Your task to perform on an android device: Show the shopping cart on amazon. Image 0: 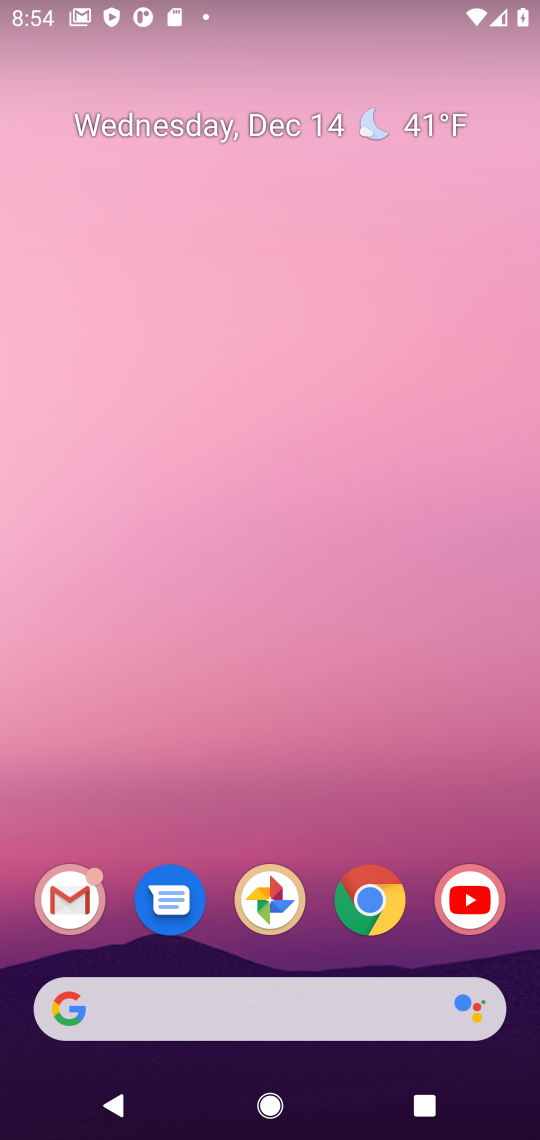
Step 0: click (362, 910)
Your task to perform on an android device: Show the shopping cart on amazon. Image 1: 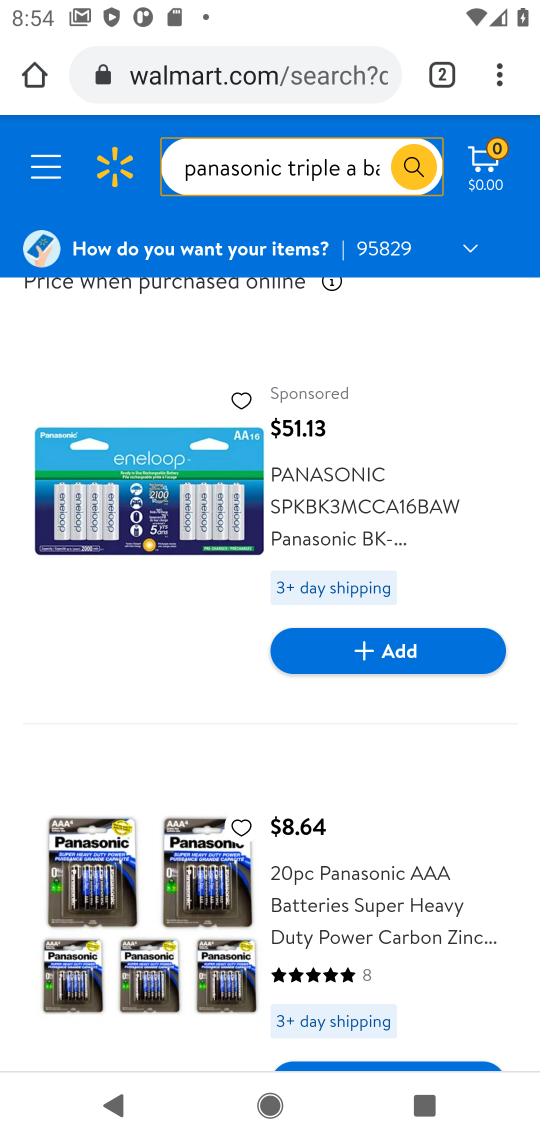
Step 1: click (226, 75)
Your task to perform on an android device: Show the shopping cart on amazon. Image 2: 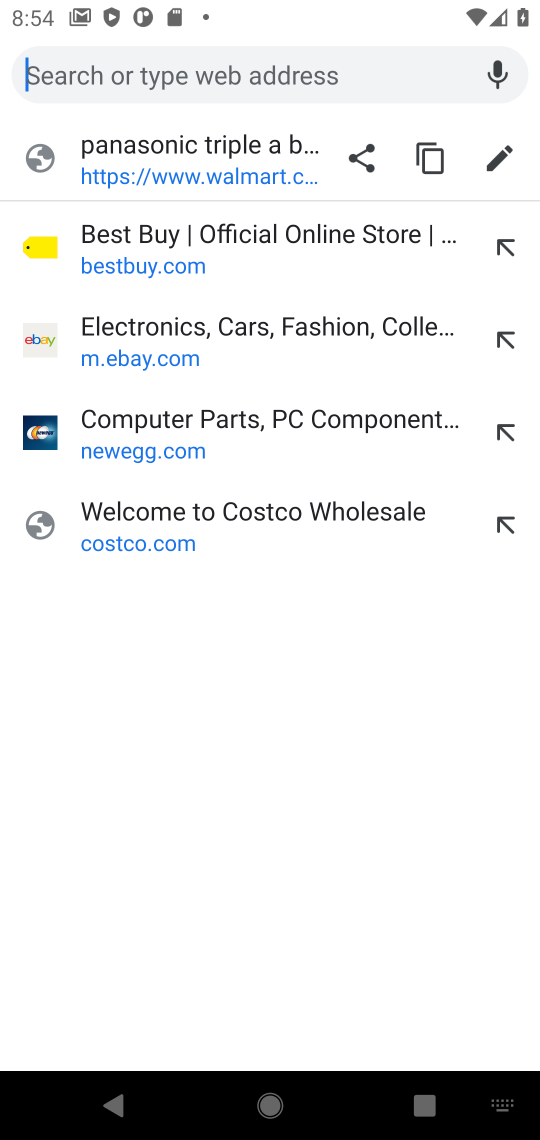
Step 2: type "amazon.com"
Your task to perform on an android device: Show the shopping cart on amazon. Image 3: 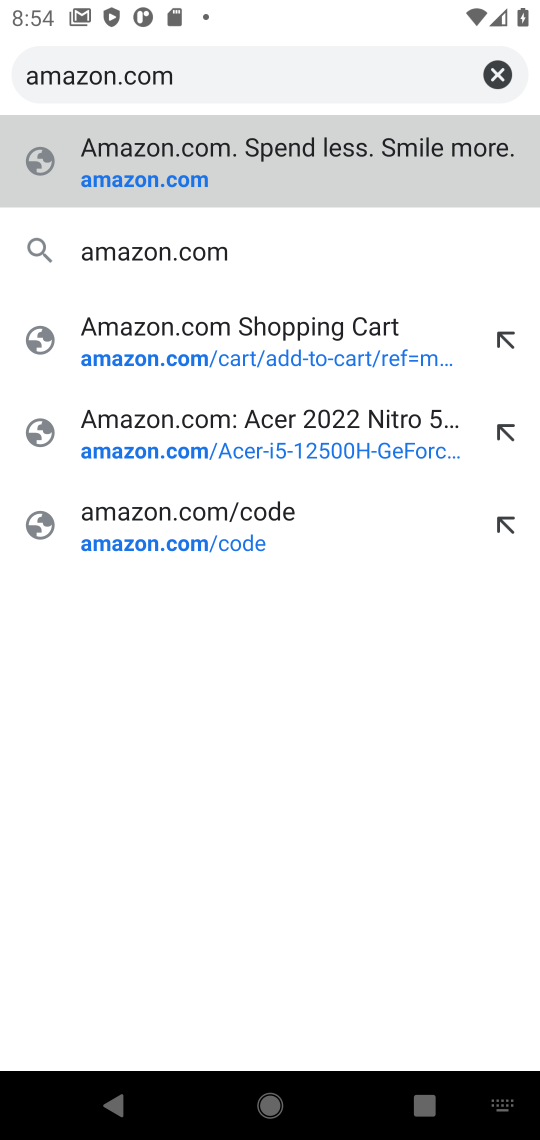
Step 3: click (139, 186)
Your task to perform on an android device: Show the shopping cart on amazon. Image 4: 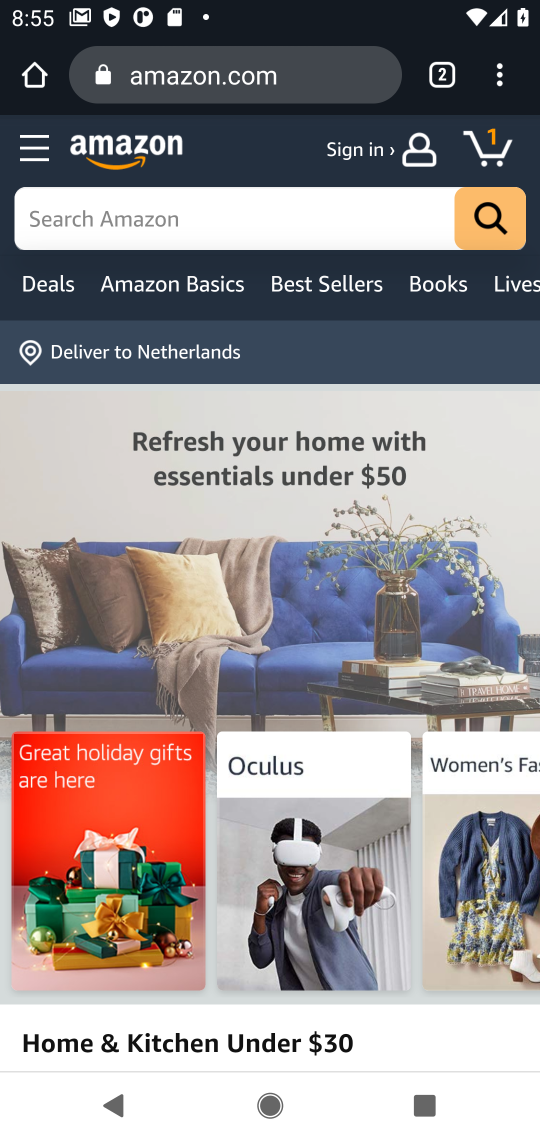
Step 4: click (496, 161)
Your task to perform on an android device: Show the shopping cart on amazon. Image 5: 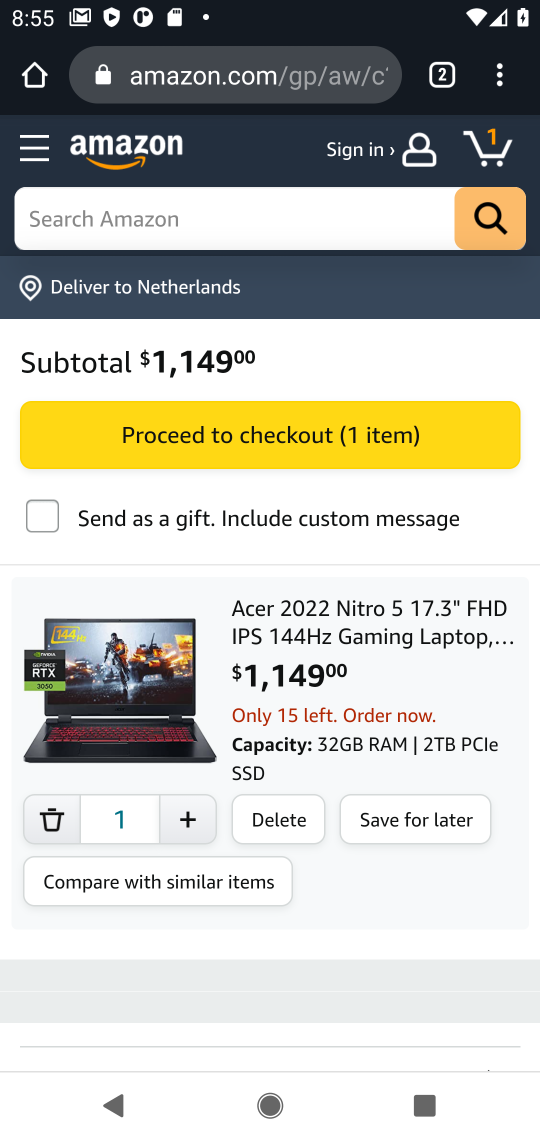
Step 5: task complete